Your task to perform on an android device: turn on airplane mode Image 0: 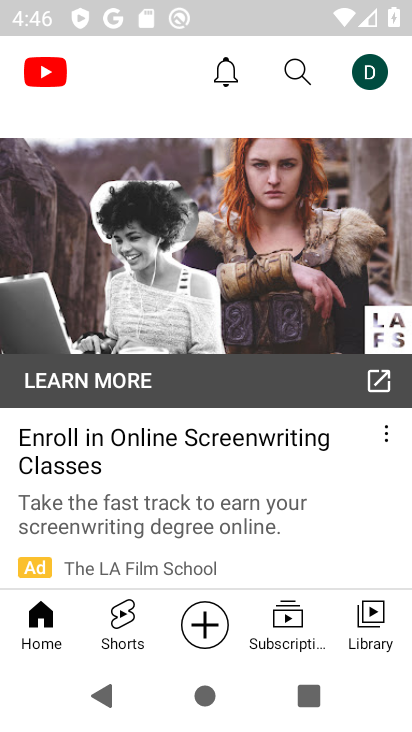
Step 0: press home button
Your task to perform on an android device: turn on airplane mode Image 1: 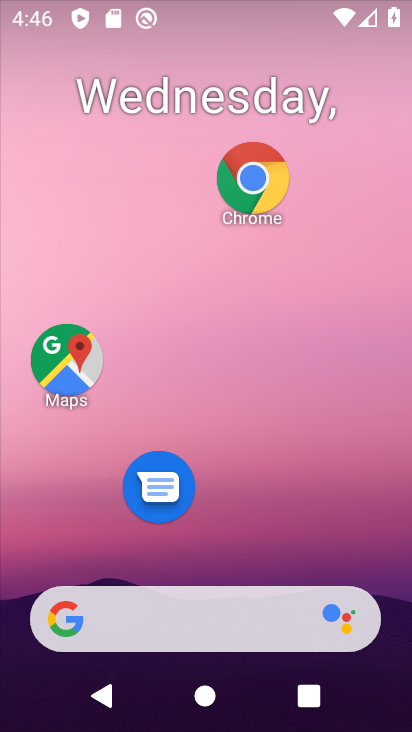
Step 1: drag from (337, 459) to (262, 26)
Your task to perform on an android device: turn on airplane mode Image 2: 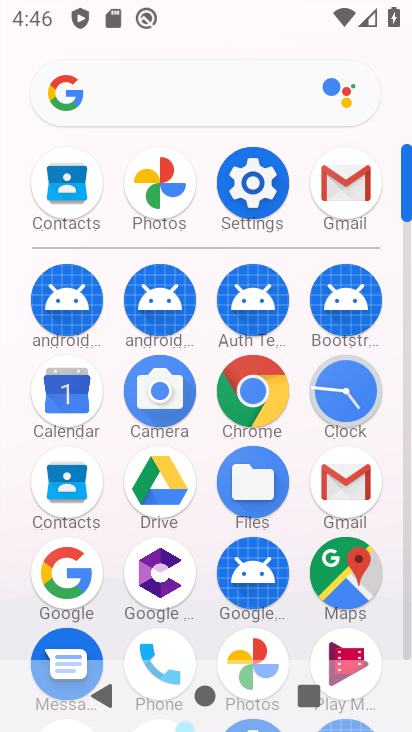
Step 2: click (230, 195)
Your task to perform on an android device: turn on airplane mode Image 3: 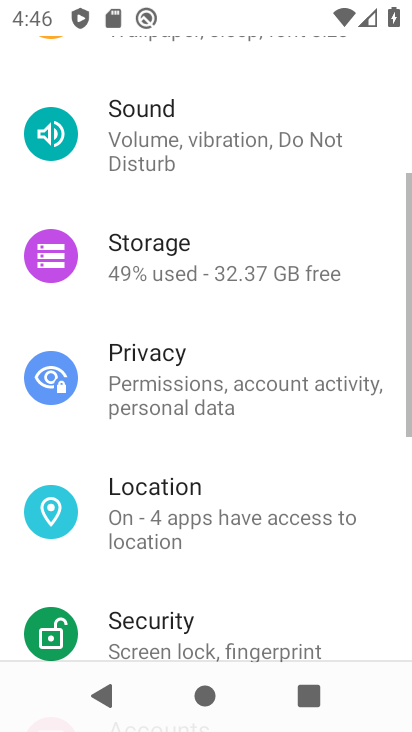
Step 3: drag from (242, 414) to (280, 669)
Your task to perform on an android device: turn on airplane mode Image 4: 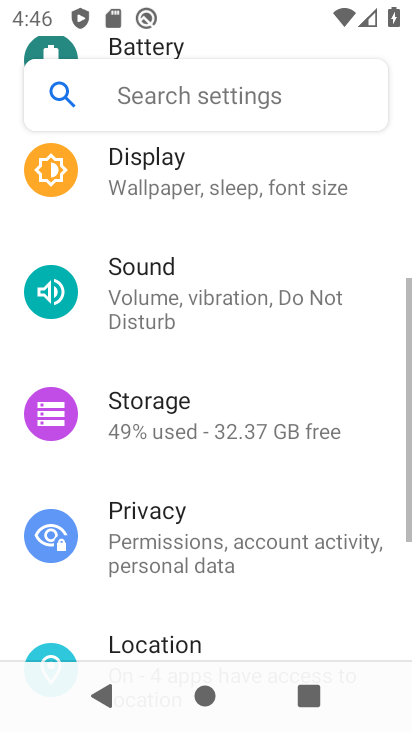
Step 4: drag from (221, 197) to (251, 568)
Your task to perform on an android device: turn on airplane mode Image 5: 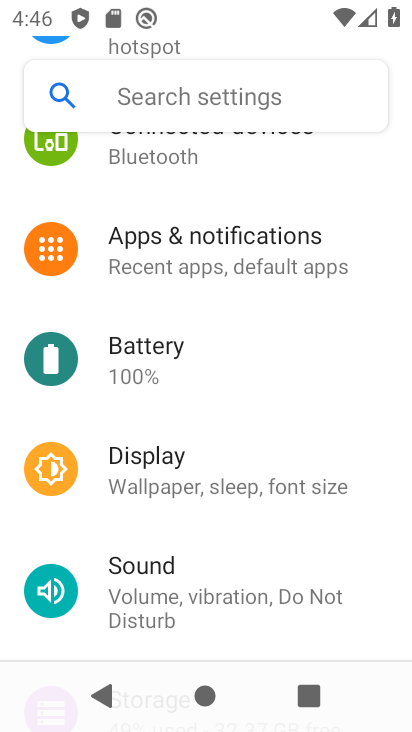
Step 5: drag from (264, 190) to (241, 597)
Your task to perform on an android device: turn on airplane mode Image 6: 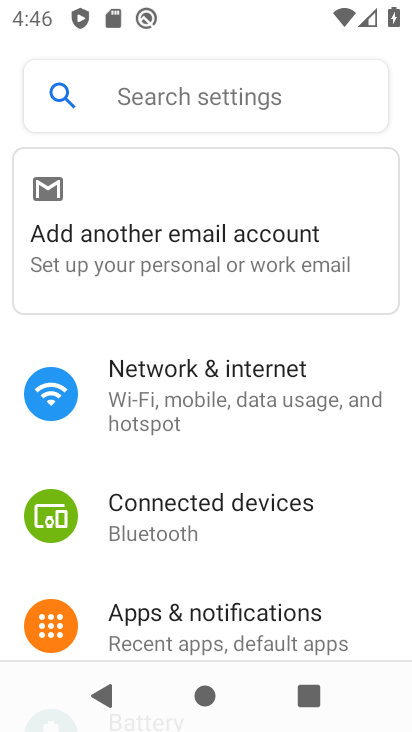
Step 6: click (217, 374)
Your task to perform on an android device: turn on airplane mode Image 7: 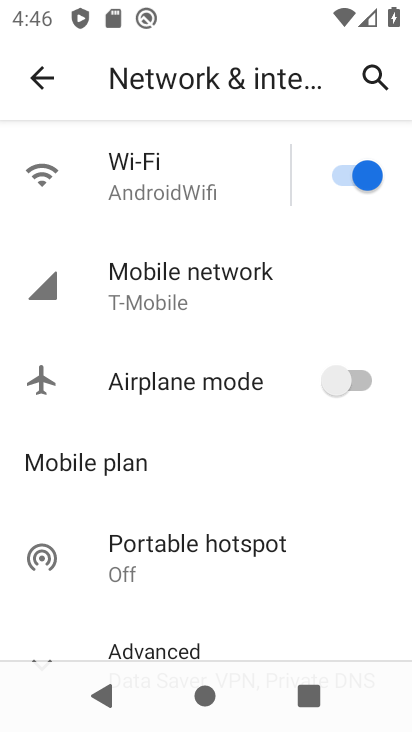
Step 7: click (334, 362)
Your task to perform on an android device: turn on airplane mode Image 8: 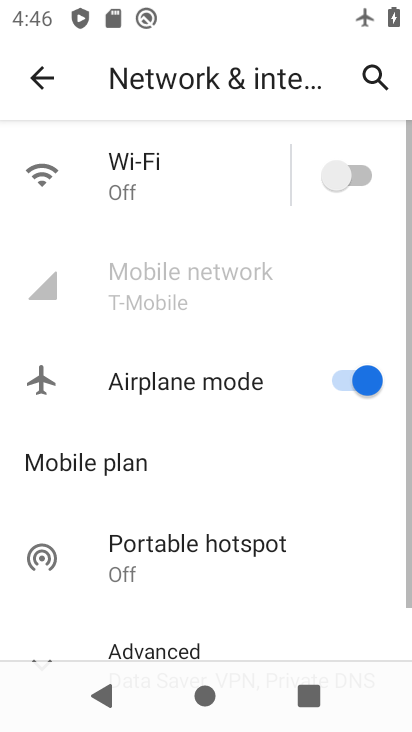
Step 8: task complete